Your task to perform on an android device: turn off airplane mode Image 0: 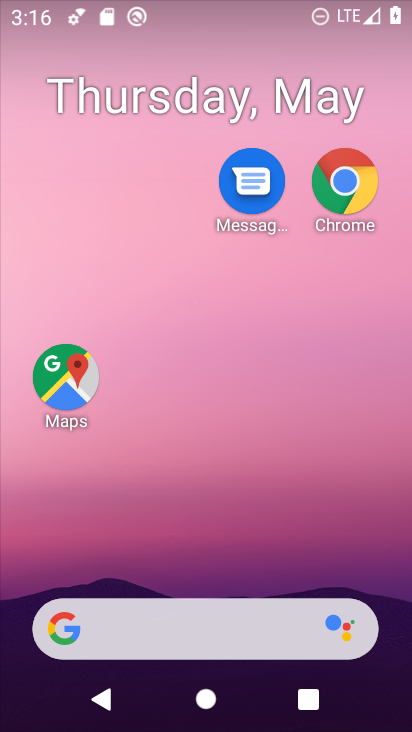
Step 0: drag from (195, 651) to (317, 3)
Your task to perform on an android device: turn off airplane mode Image 1: 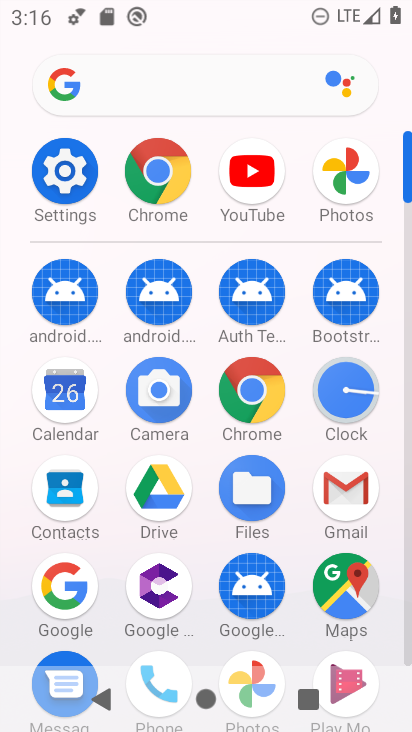
Step 1: click (57, 194)
Your task to perform on an android device: turn off airplane mode Image 2: 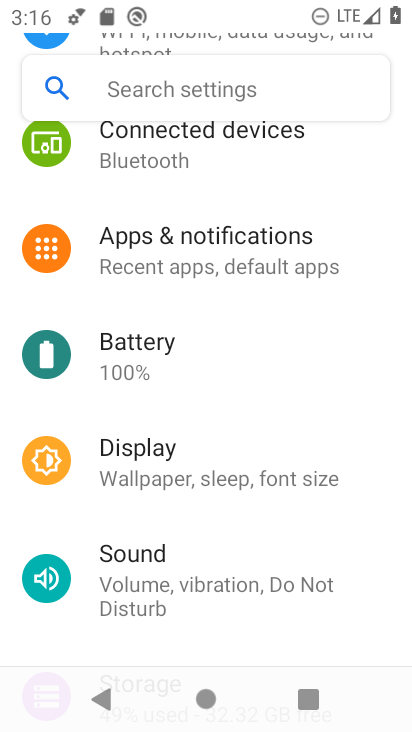
Step 2: drag from (281, 162) to (289, 726)
Your task to perform on an android device: turn off airplane mode Image 3: 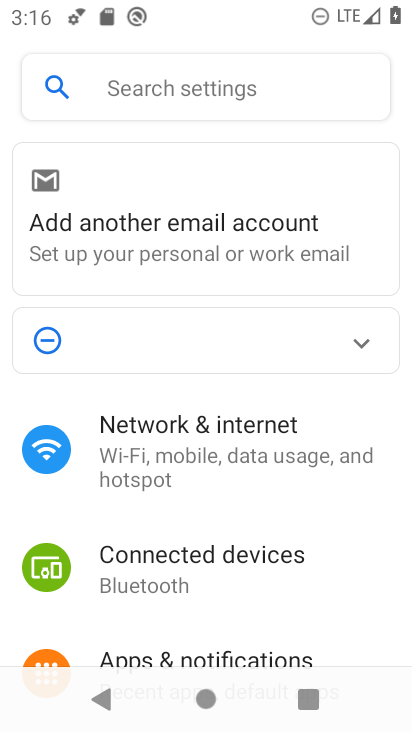
Step 3: click (241, 458)
Your task to perform on an android device: turn off airplane mode Image 4: 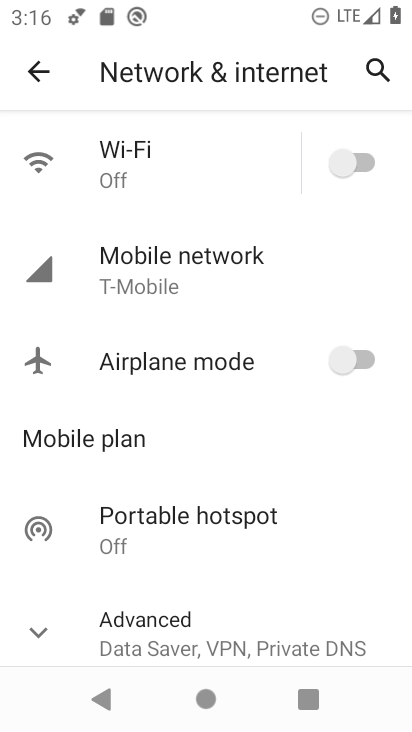
Step 4: task complete